Your task to perform on an android device: read, delete, or share a saved page in the chrome app Image 0: 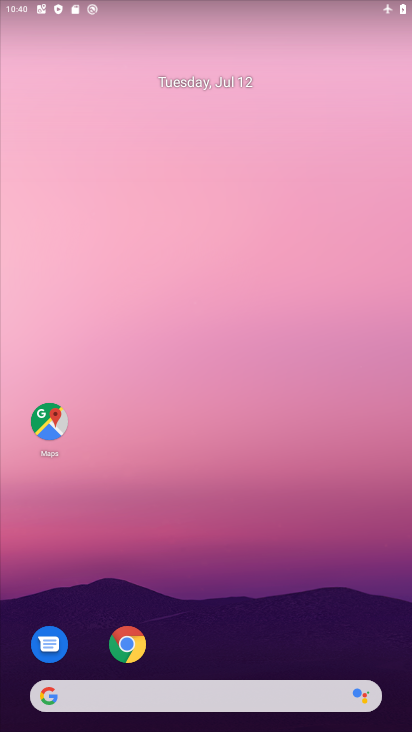
Step 0: drag from (298, 614) to (409, 64)
Your task to perform on an android device: read, delete, or share a saved page in the chrome app Image 1: 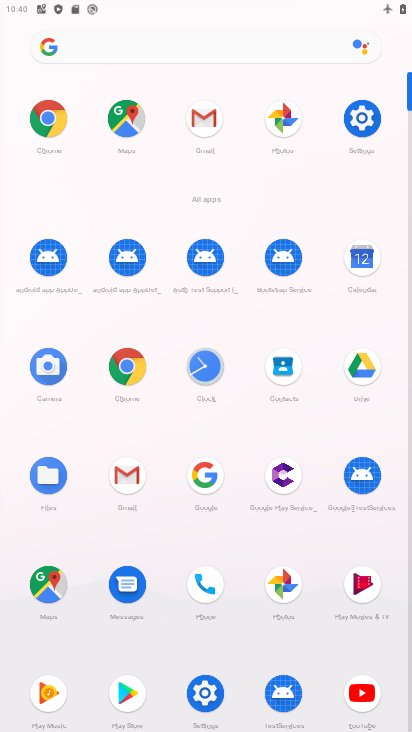
Step 1: click (63, 120)
Your task to perform on an android device: read, delete, or share a saved page in the chrome app Image 2: 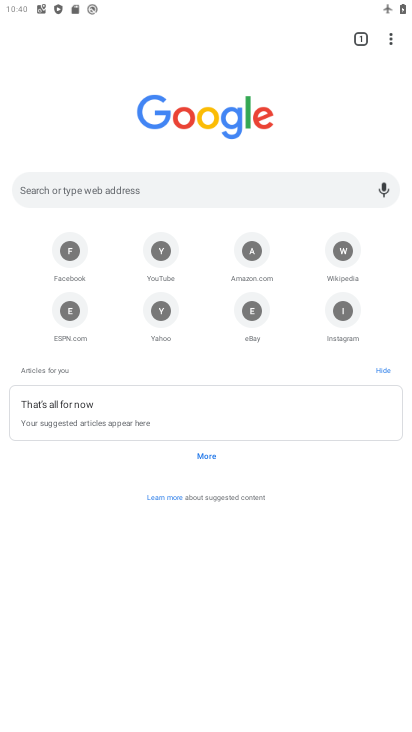
Step 2: drag from (388, 42) to (232, 267)
Your task to perform on an android device: read, delete, or share a saved page in the chrome app Image 3: 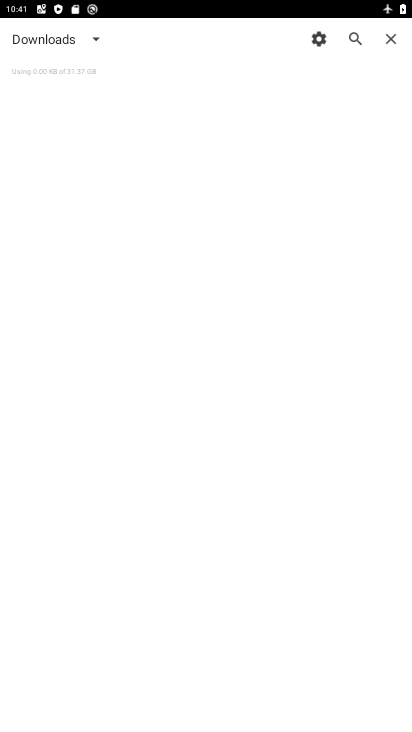
Step 3: click (93, 43)
Your task to perform on an android device: read, delete, or share a saved page in the chrome app Image 4: 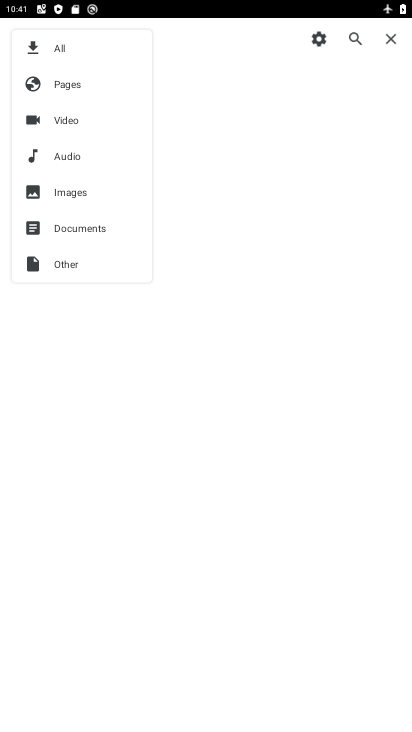
Step 4: click (65, 83)
Your task to perform on an android device: read, delete, or share a saved page in the chrome app Image 5: 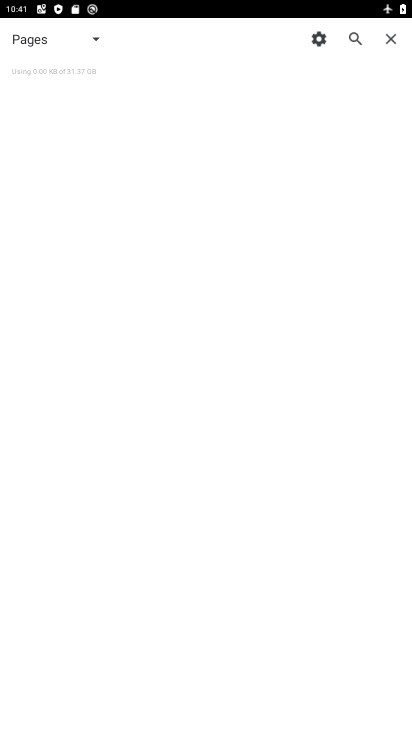
Step 5: task complete